Your task to perform on an android device: turn on priority inbox in the gmail app Image 0: 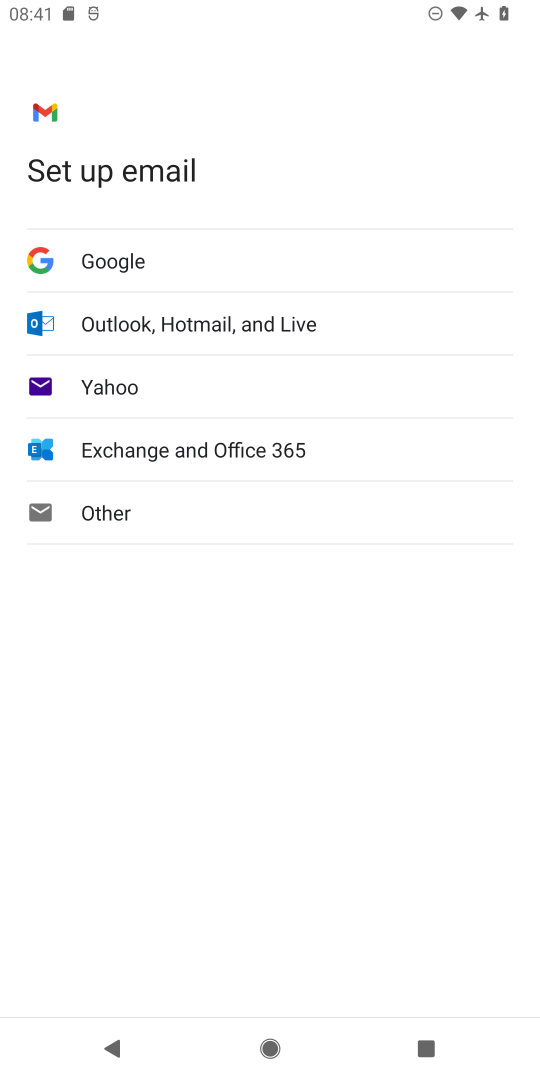
Step 0: press home button
Your task to perform on an android device: turn on priority inbox in the gmail app Image 1: 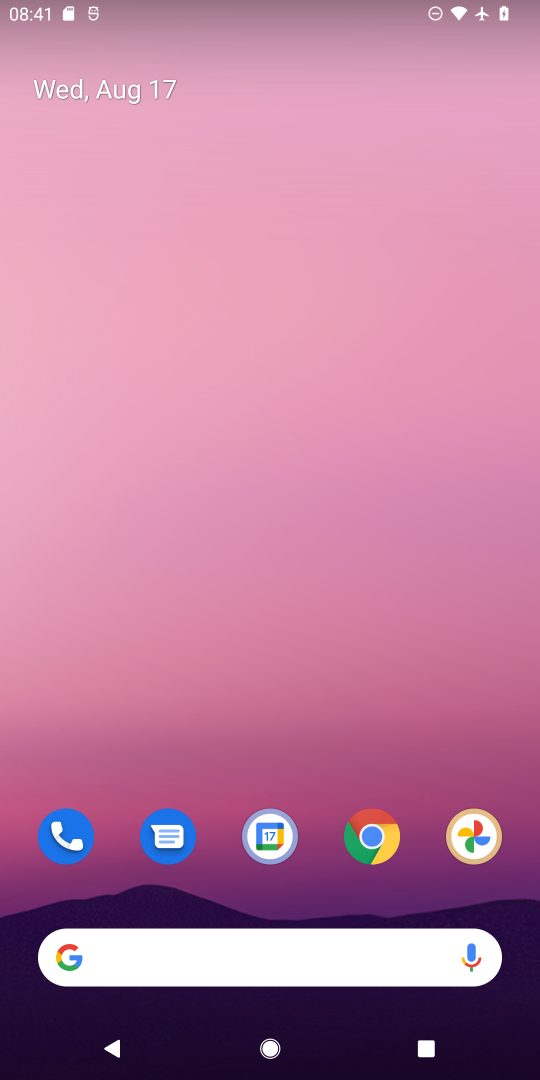
Step 1: drag from (230, 883) to (310, 195)
Your task to perform on an android device: turn on priority inbox in the gmail app Image 2: 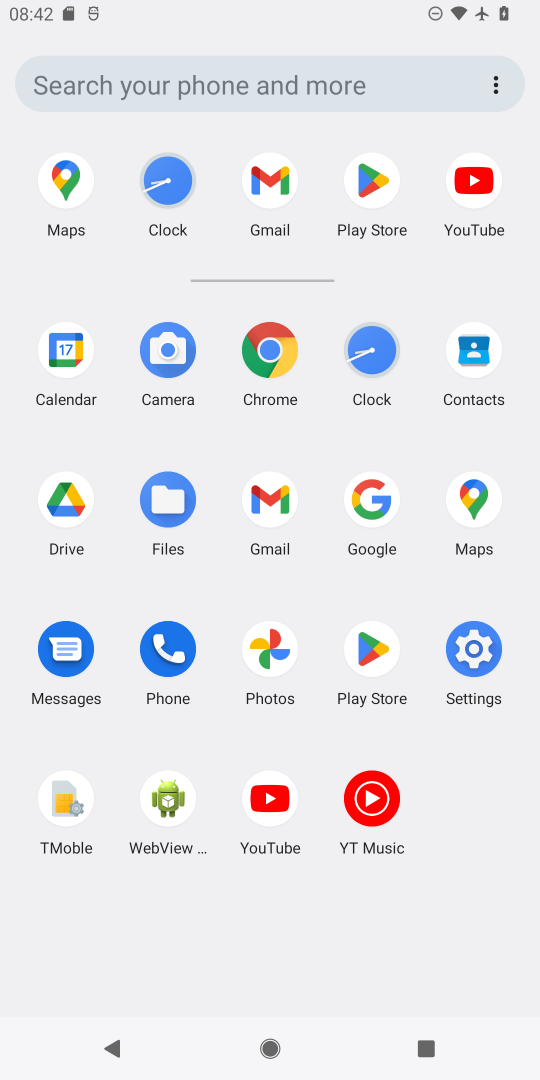
Step 2: click (275, 481)
Your task to perform on an android device: turn on priority inbox in the gmail app Image 3: 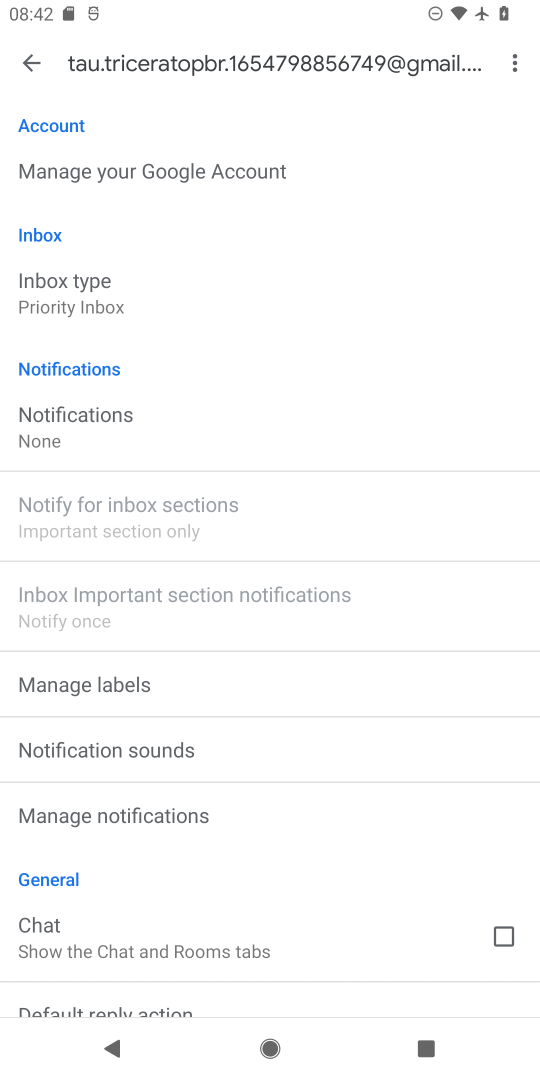
Step 3: click (70, 290)
Your task to perform on an android device: turn on priority inbox in the gmail app Image 4: 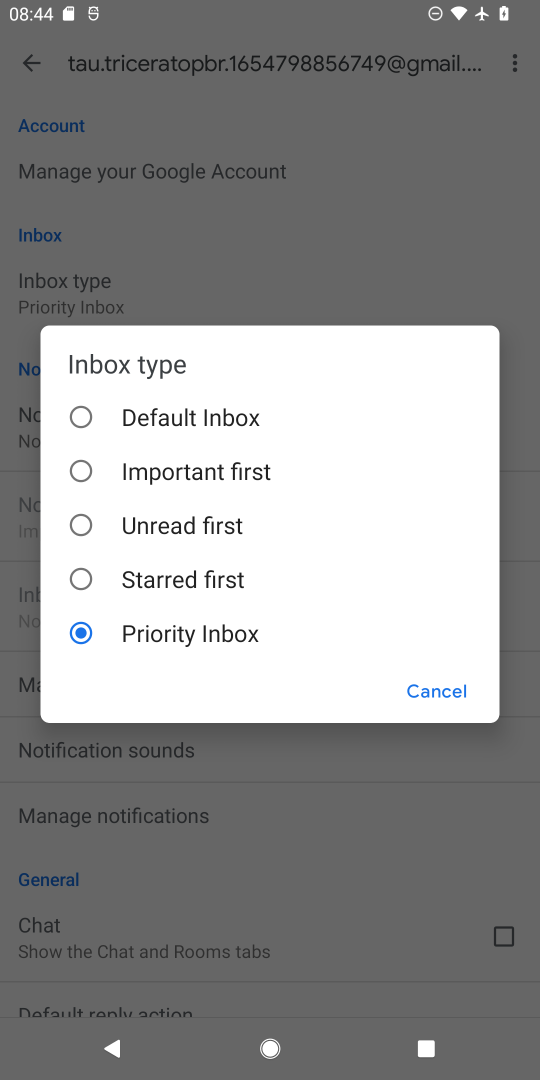
Step 4: task complete